Your task to perform on an android device: Open calendar and show me the first week of next month Image 0: 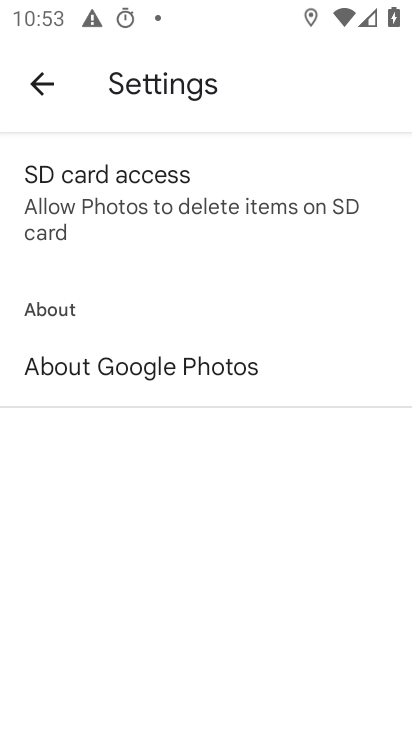
Step 0: press home button
Your task to perform on an android device: Open calendar and show me the first week of next month Image 1: 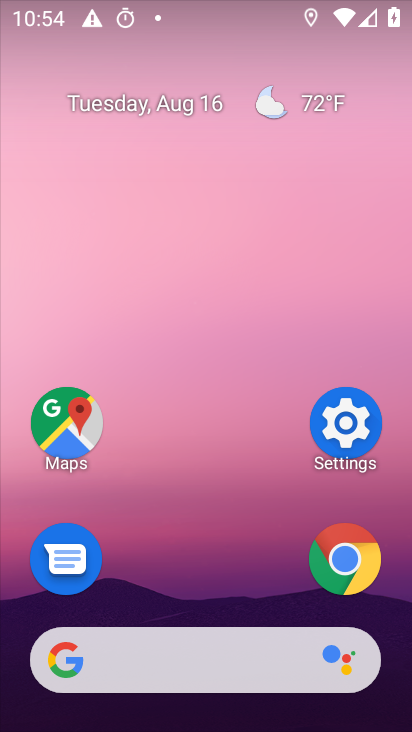
Step 1: drag from (213, 623) to (344, 49)
Your task to perform on an android device: Open calendar and show me the first week of next month Image 2: 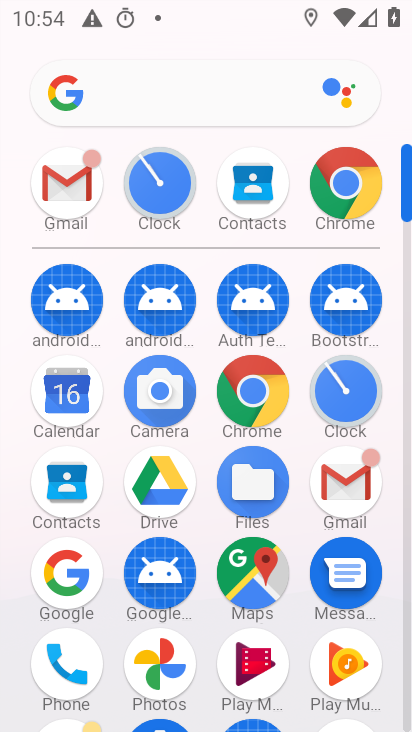
Step 2: click (68, 400)
Your task to perform on an android device: Open calendar and show me the first week of next month Image 3: 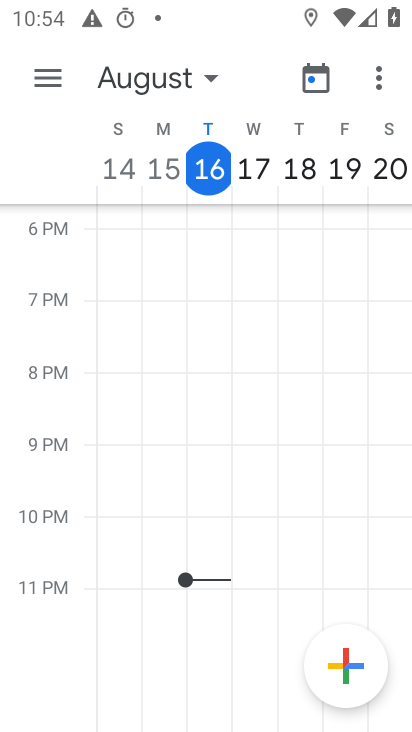
Step 3: click (166, 72)
Your task to perform on an android device: Open calendar and show me the first week of next month Image 4: 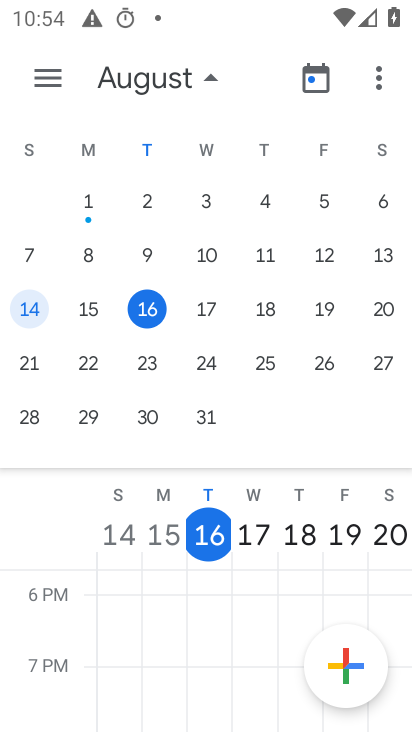
Step 4: drag from (352, 317) to (99, 339)
Your task to perform on an android device: Open calendar and show me the first week of next month Image 5: 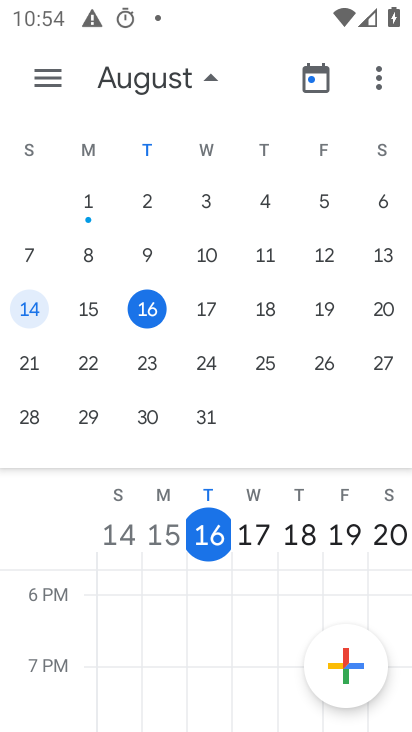
Step 5: drag from (374, 223) to (8, 283)
Your task to perform on an android device: Open calendar and show me the first week of next month Image 6: 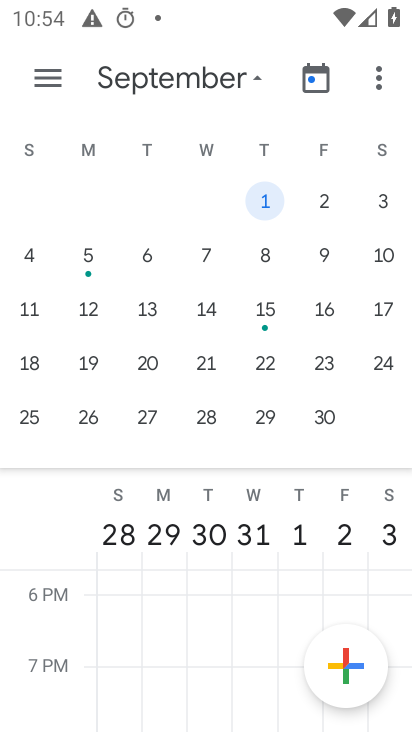
Step 6: click (259, 205)
Your task to perform on an android device: Open calendar and show me the first week of next month Image 7: 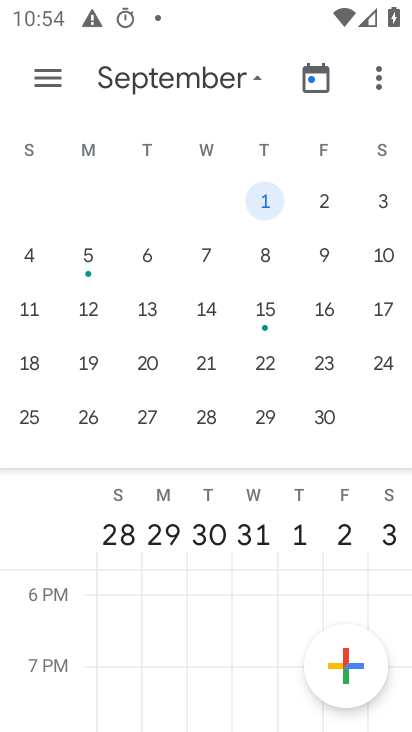
Step 7: click (49, 78)
Your task to perform on an android device: Open calendar and show me the first week of next month Image 8: 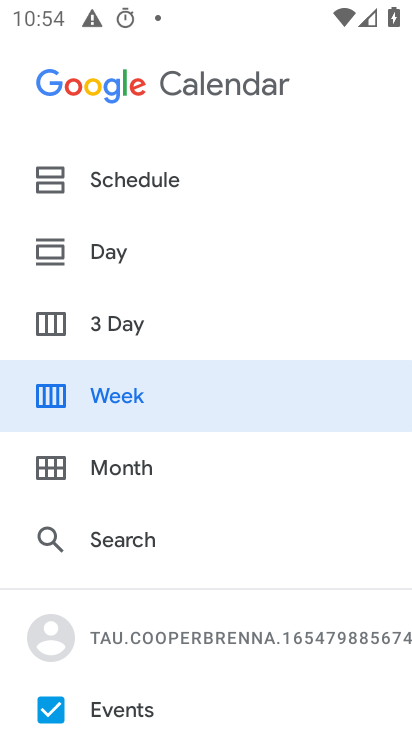
Step 8: click (116, 395)
Your task to perform on an android device: Open calendar and show me the first week of next month Image 9: 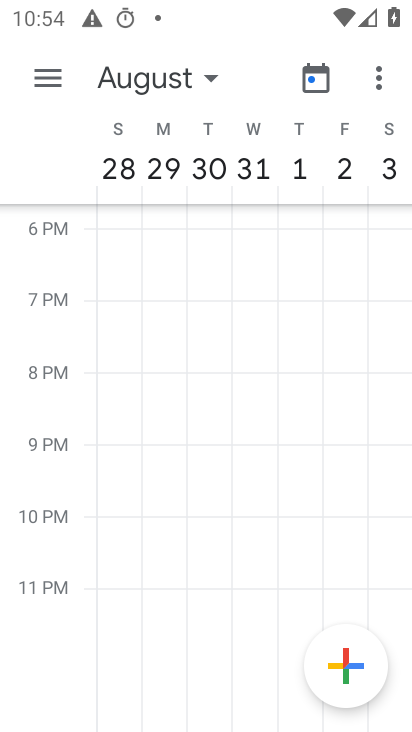
Step 9: task complete